Your task to perform on an android device: change notification settings in the gmail app Image 0: 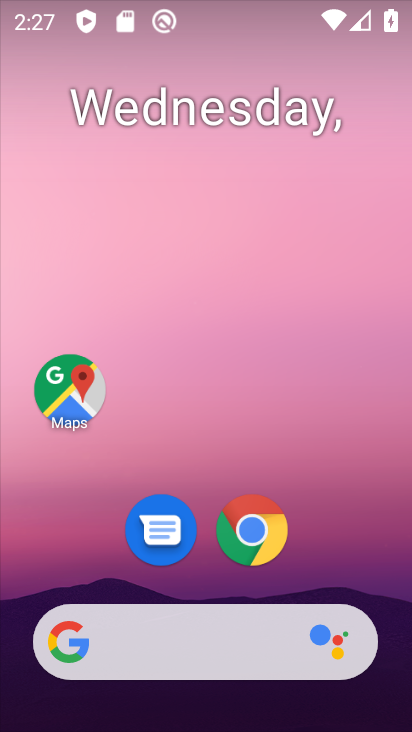
Step 0: drag from (130, 617) to (112, 465)
Your task to perform on an android device: change notification settings in the gmail app Image 1: 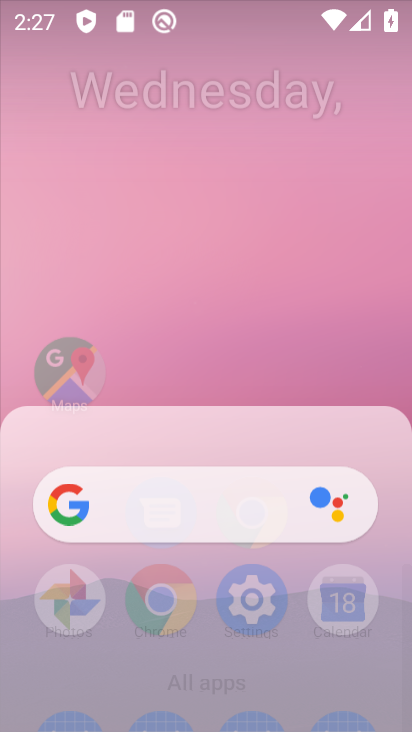
Step 1: click (112, 465)
Your task to perform on an android device: change notification settings in the gmail app Image 2: 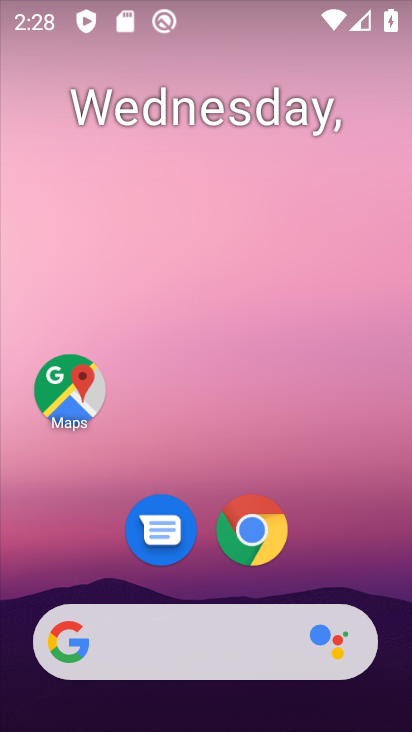
Step 2: drag from (150, 636) to (113, 288)
Your task to perform on an android device: change notification settings in the gmail app Image 3: 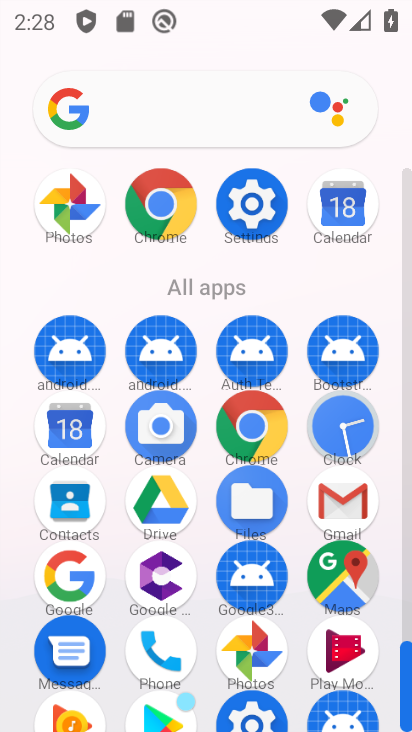
Step 3: click (353, 511)
Your task to perform on an android device: change notification settings in the gmail app Image 4: 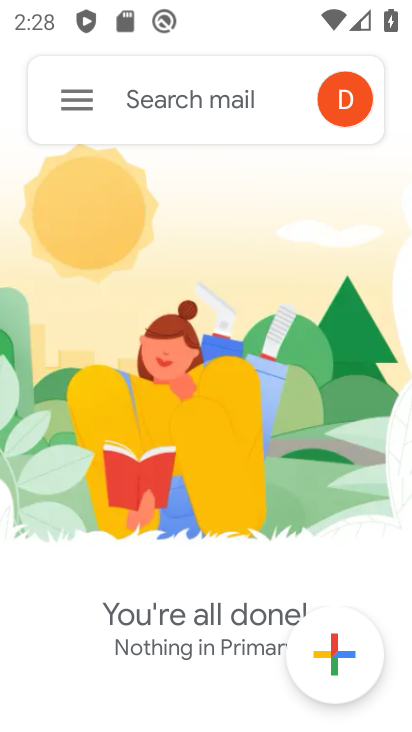
Step 4: click (69, 114)
Your task to perform on an android device: change notification settings in the gmail app Image 5: 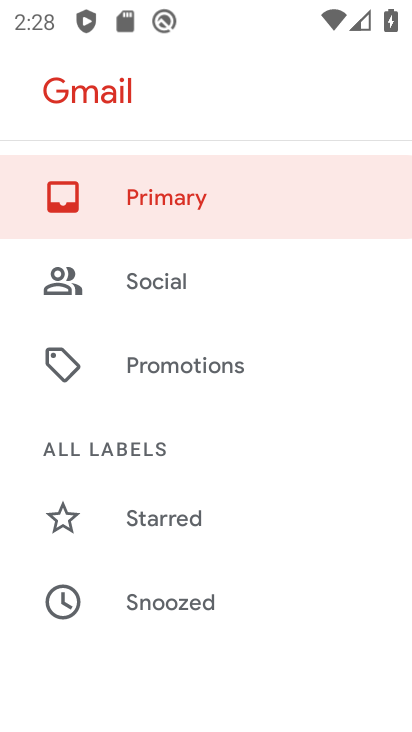
Step 5: drag from (227, 565) to (221, 157)
Your task to perform on an android device: change notification settings in the gmail app Image 6: 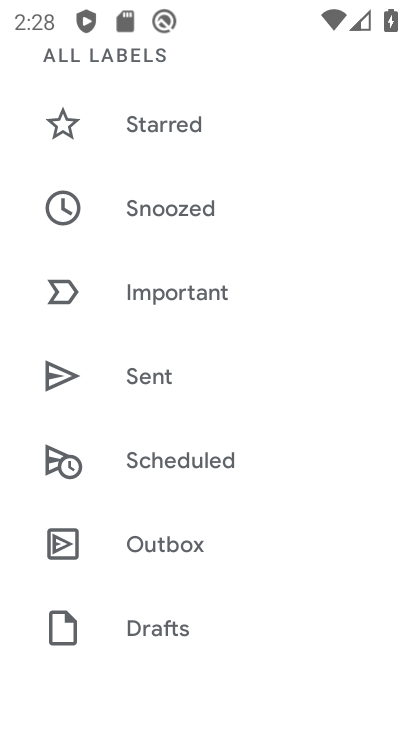
Step 6: drag from (199, 584) to (192, 84)
Your task to perform on an android device: change notification settings in the gmail app Image 7: 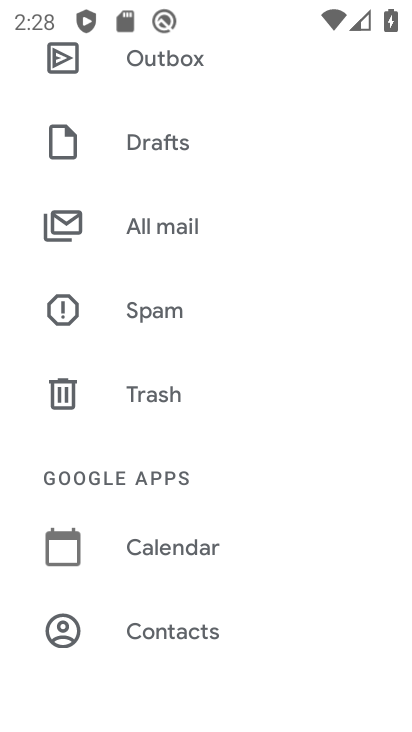
Step 7: drag from (170, 511) to (214, 48)
Your task to perform on an android device: change notification settings in the gmail app Image 8: 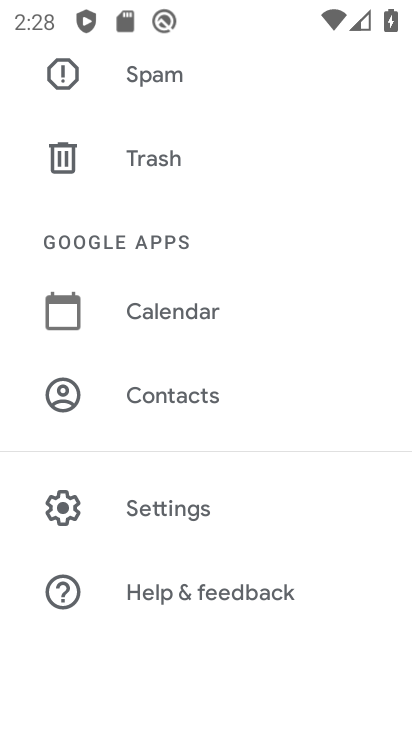
Step 8: click (191, 511)
Your task to perform on an android device: change notification settings in the gmail app Image 9: 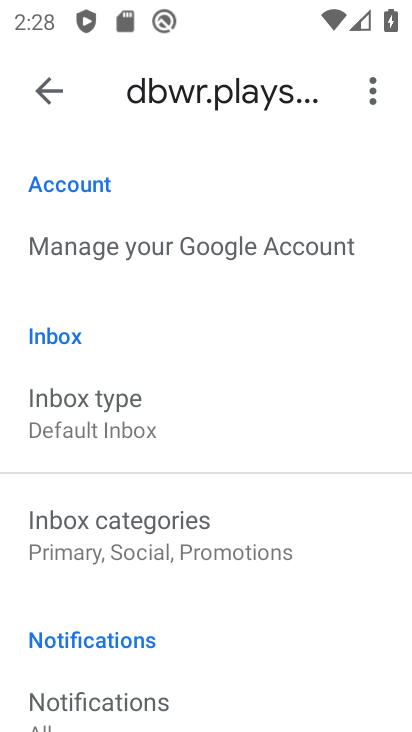
Step 9: drag from (225, 568) to (210, 178)
Your task to perform on an android device: change notification settings in the gmail app Image 10: 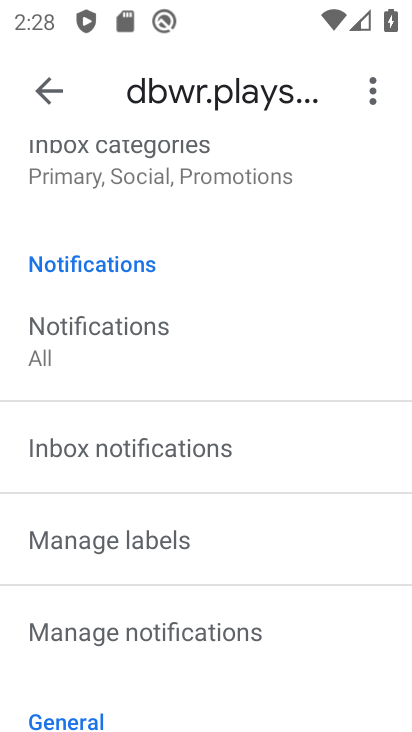
Step 10: click (162, 619)
Your task to perform on an android device: change notification settings in the gmail app Image 11: 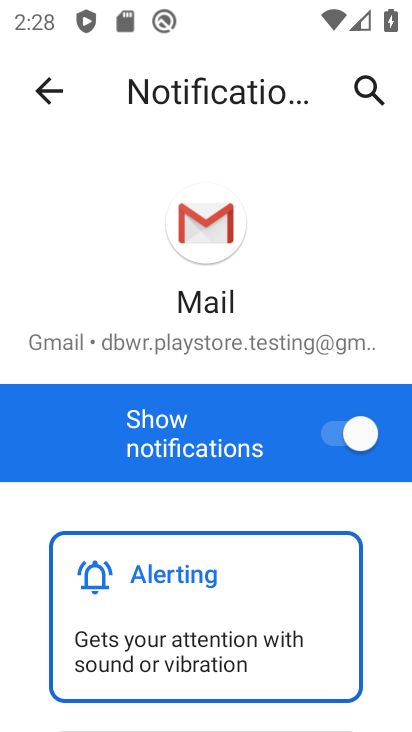
Step 11: click (335, 442)
Your task to perform on an android device: change notification settings in the gmail app Image 12: 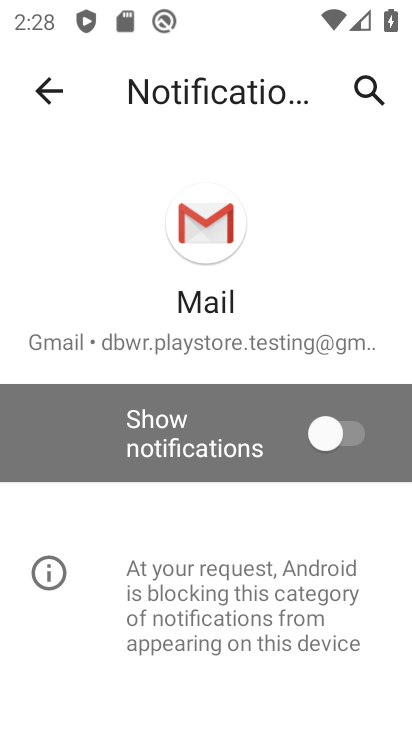
Step 12: task complete